Your task to perform on an android device: turn off smart reply in the gmail app Image 0: 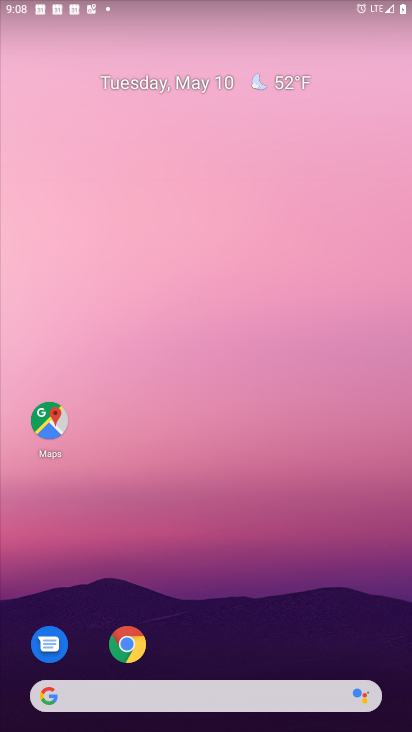
Step 0: drag from (398, 675) to (324, 94)
Your task to perform on an android device: turn off smart reply in the gmail app Image 1: 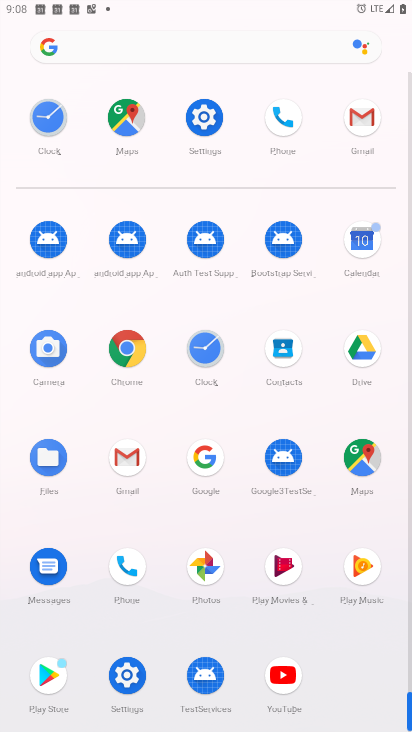
Step 1: click (126, 452)
Your task to perform on an android device: turn off smart reply in the gmail app Image 2: 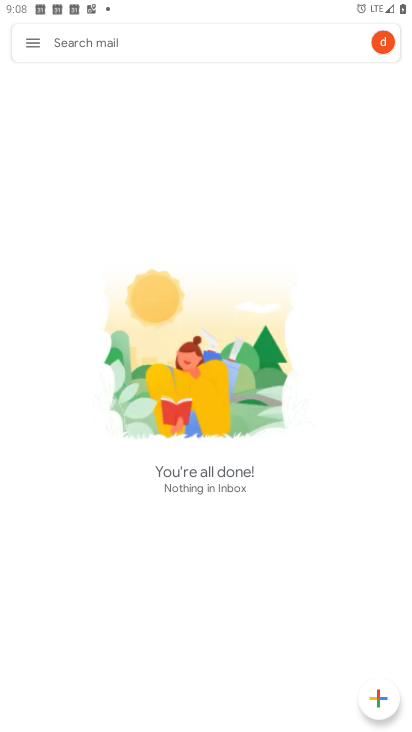
Step 2: click (31, 38)
Your task to perform on an android device: turn off smart reply in the gmail app Image 3: 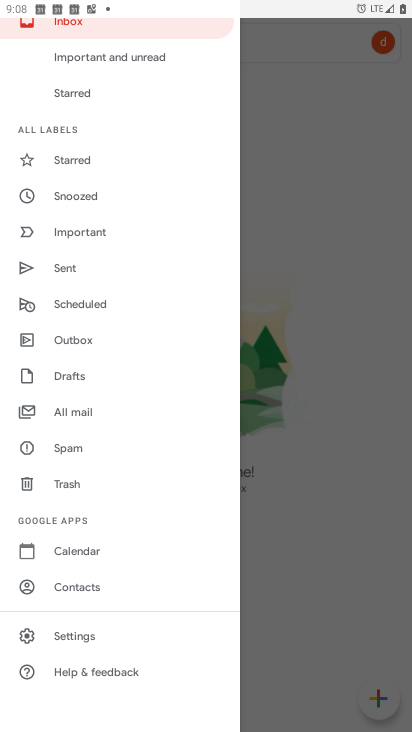
Step 3: drag from (145, 596) to (169, 337)
Your task to perform on an android device: turn off smart reply in the gmail app Image 4: 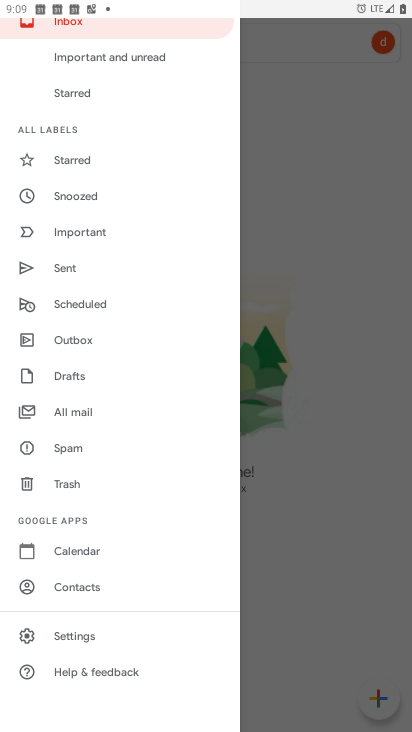
Step 4: click (84, 629)
Your task to perform on an android device: turn off smart reply in the gmail app Image 5: 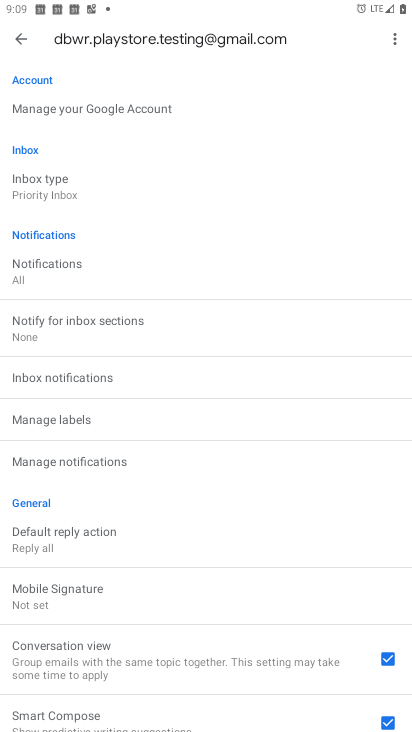
Step 5: drag from (256, 635) to (278, 273)
Your task to perform on an android device: turn off smart reply in the gmail app Image 6: 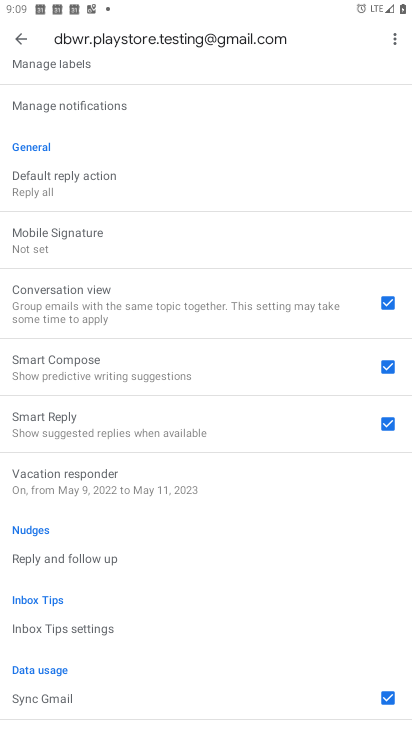
Step 6: click (385, 421)
Your task to perform on an android device: turn off smart reply in the gmail app Image 7: 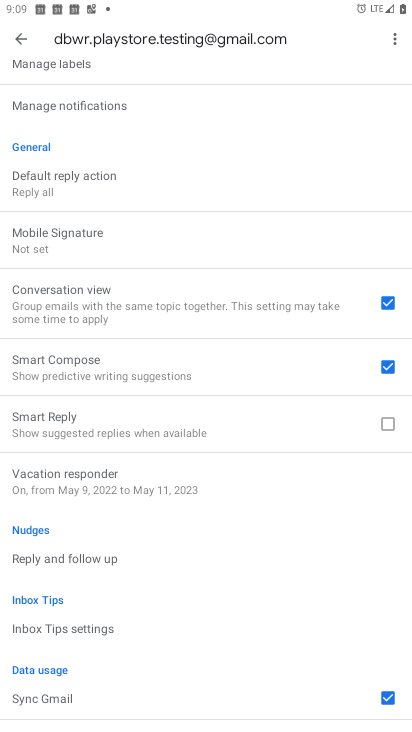
Step 7: task complete